Your task to perform on an android device: open app "Google Play Games" (install if not already installed) Image 0: 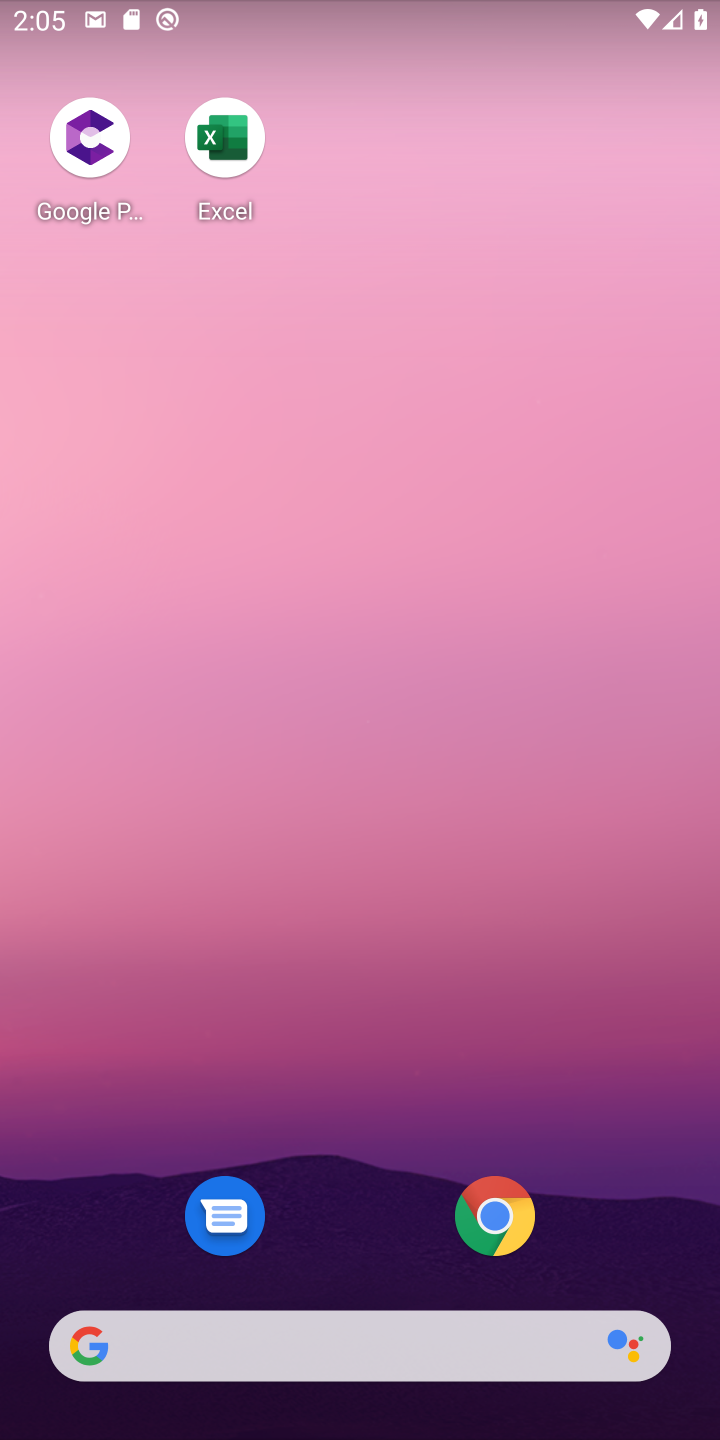
Step 0: drag from (359, 1286) to (189, 131)
Your task to perform on an android device: open app "Google Play Games" (install if not already installed) Image 1: 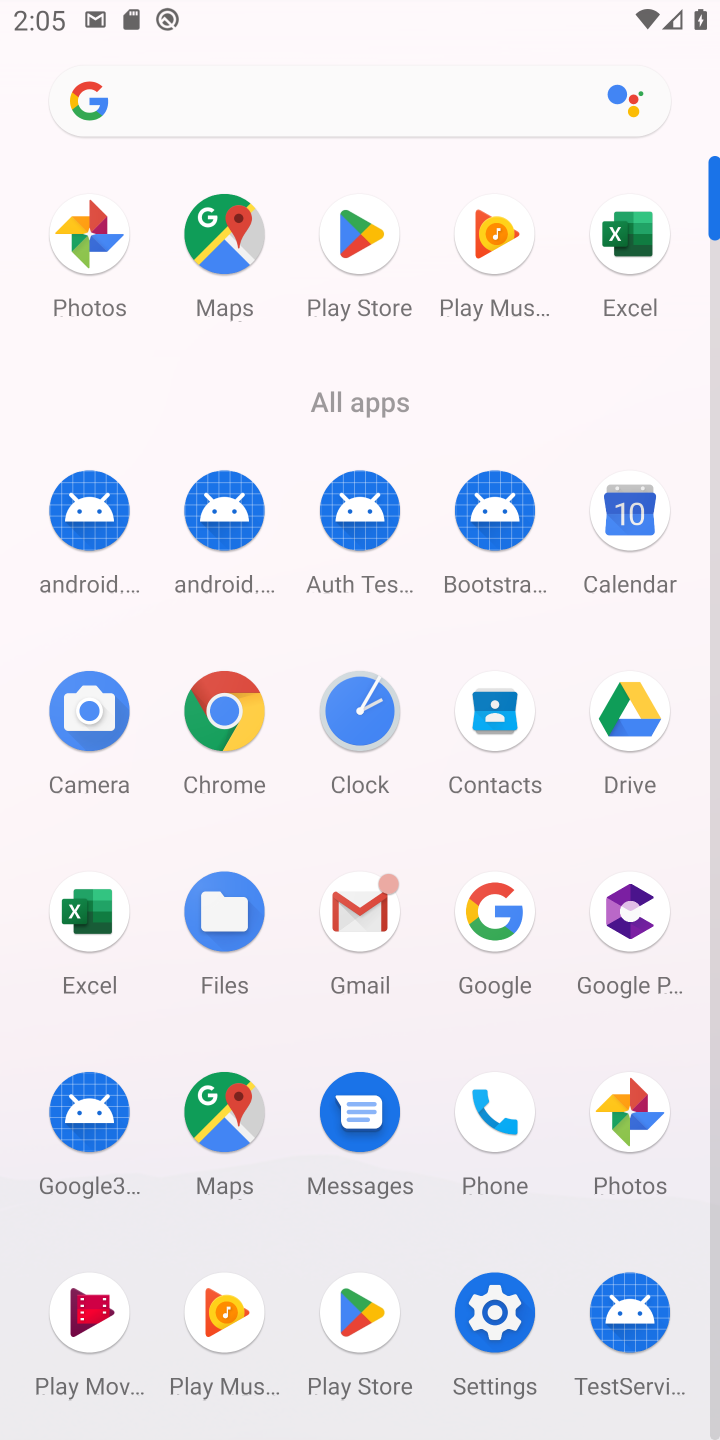
Step 1: click (344, 1319)
Your task to perform on an android device: open app "Google Play Games" (install if not already installed) Image 2: 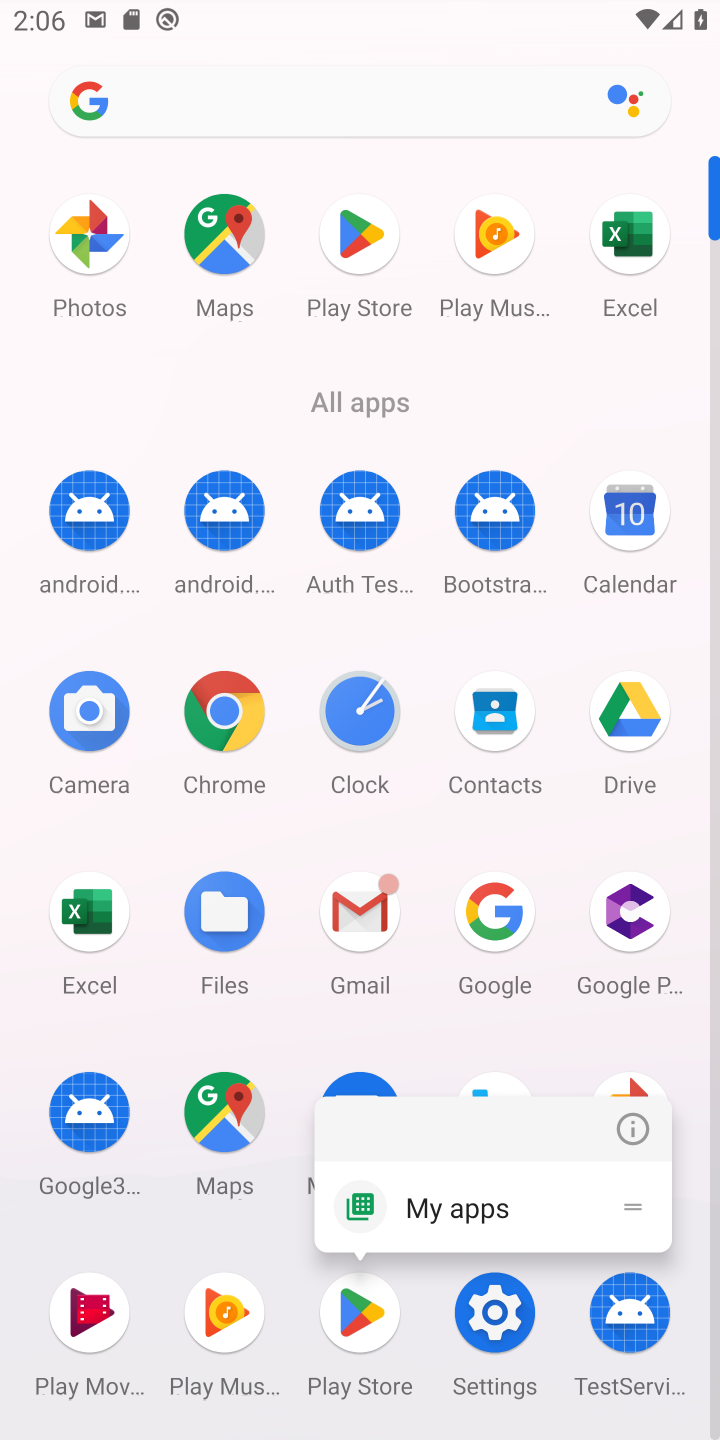
Step 2: click (344, 1319)
Your task to perform on an android device: open app "Google Play Games" (install if not already installed) Image 3: 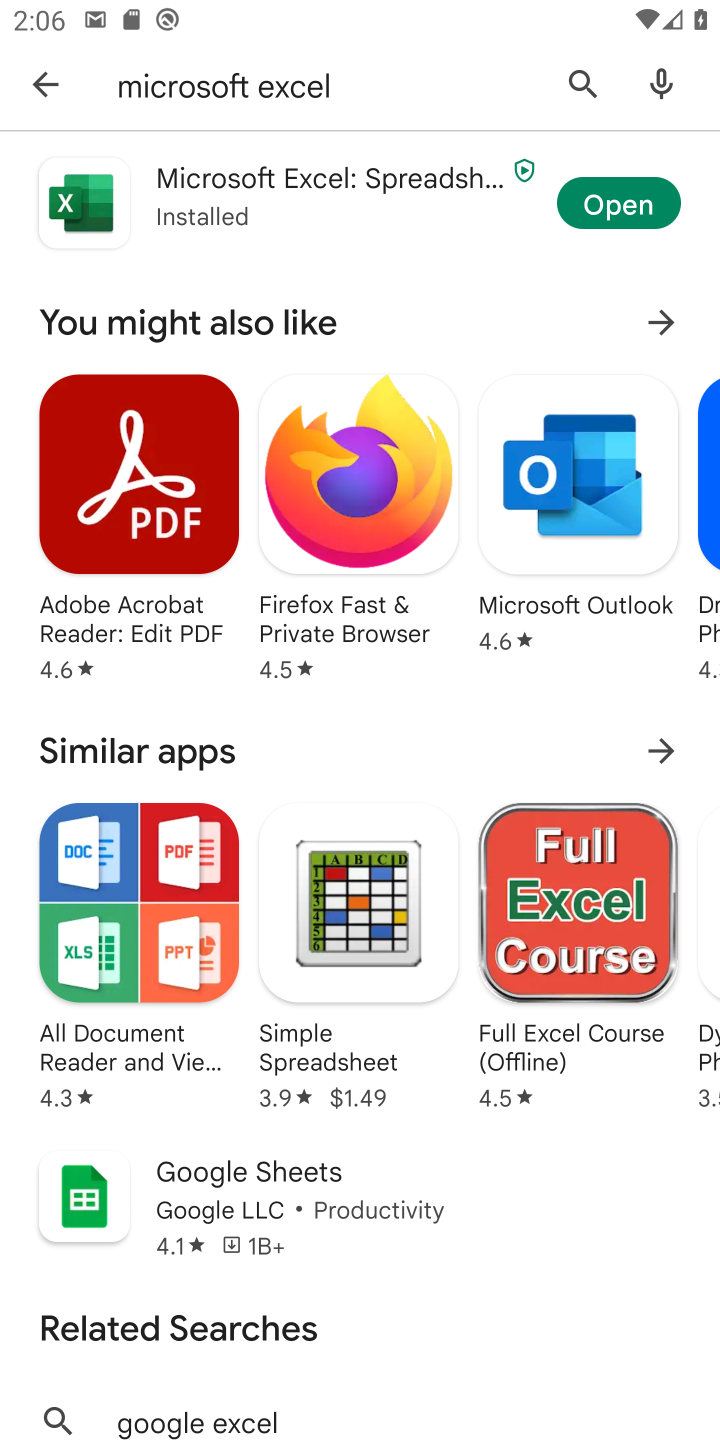
Step 3: click (40, 88)
Your task to perform on an android device: open app "Google Play Games" (install if not already installed) Image 4: 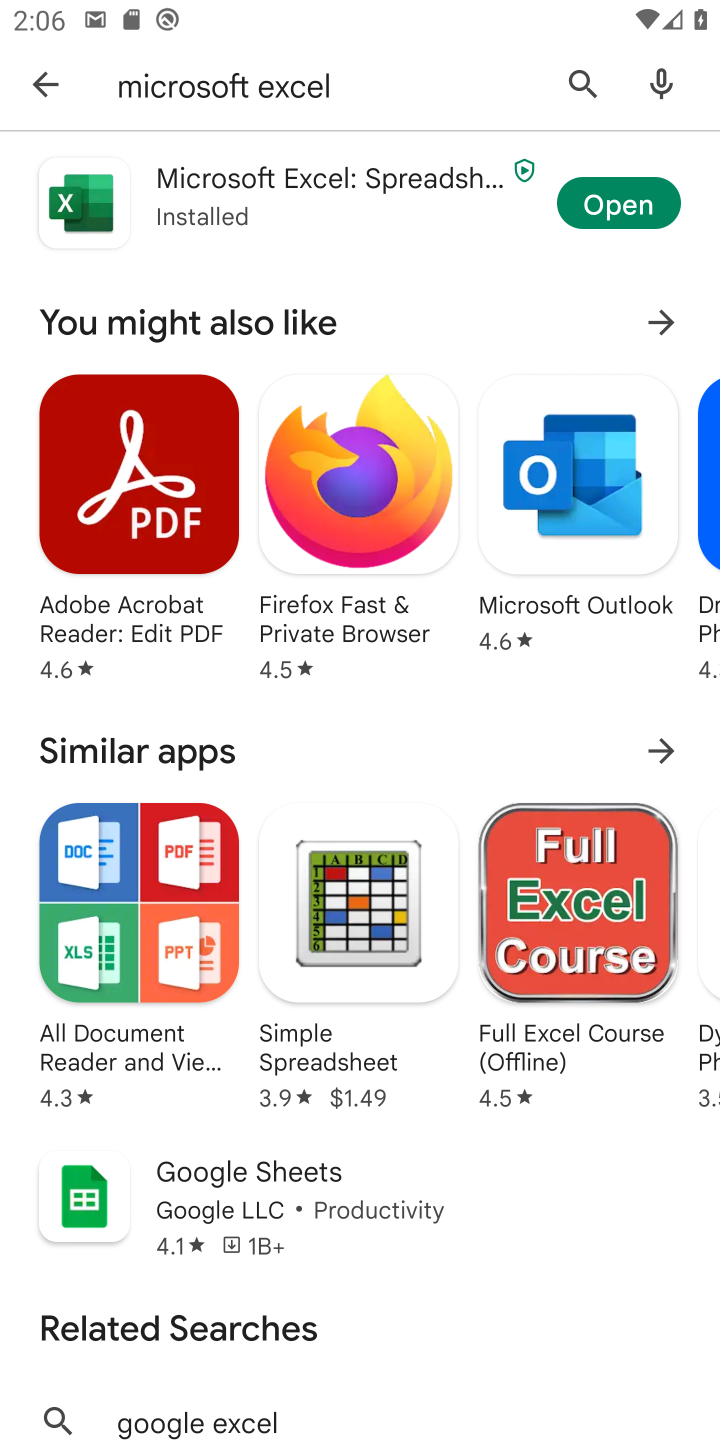
Step 4: click (580, 85)
Your task to perform on an android device: open app "Google Play Games" (install if not already installed) Image 5: 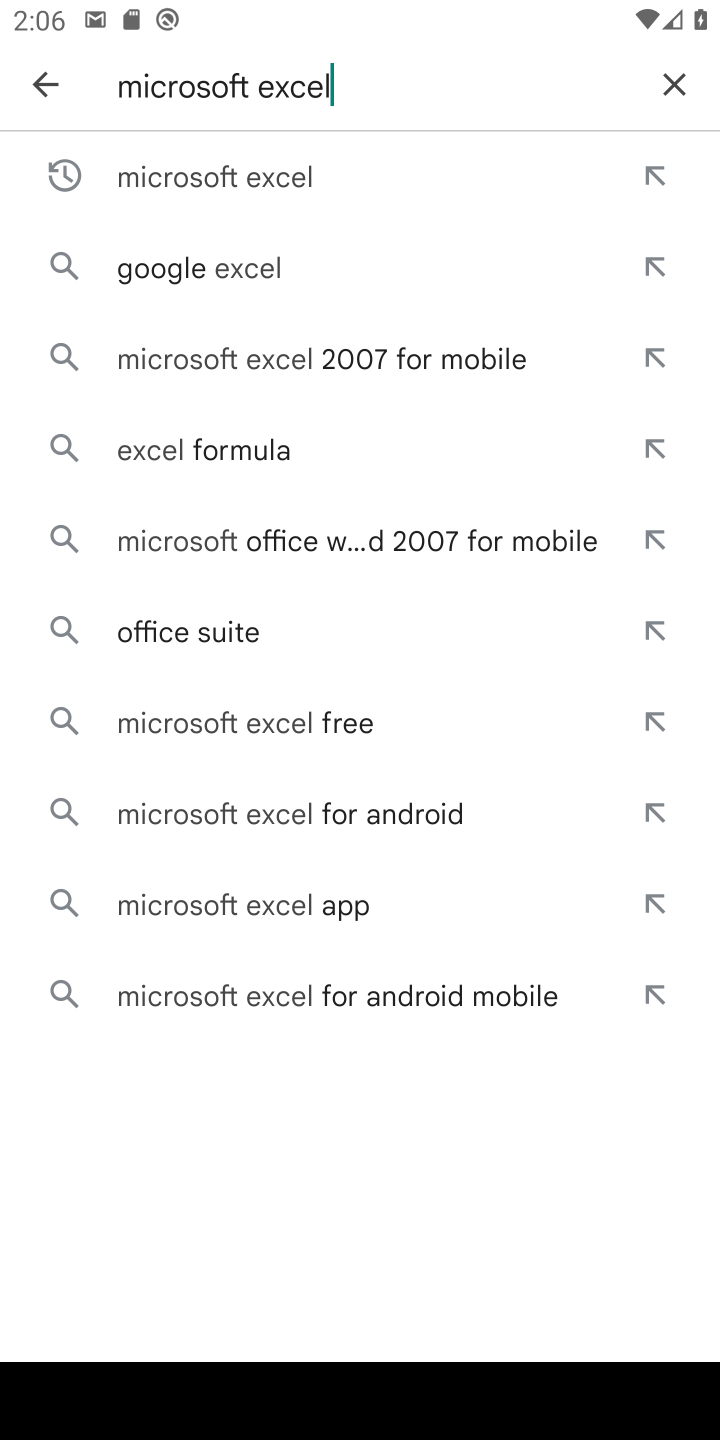
Step 5: click (656, 87)
Your task to perform on an android device: open app "Google Play Games" (install if not already installed) Image 6: 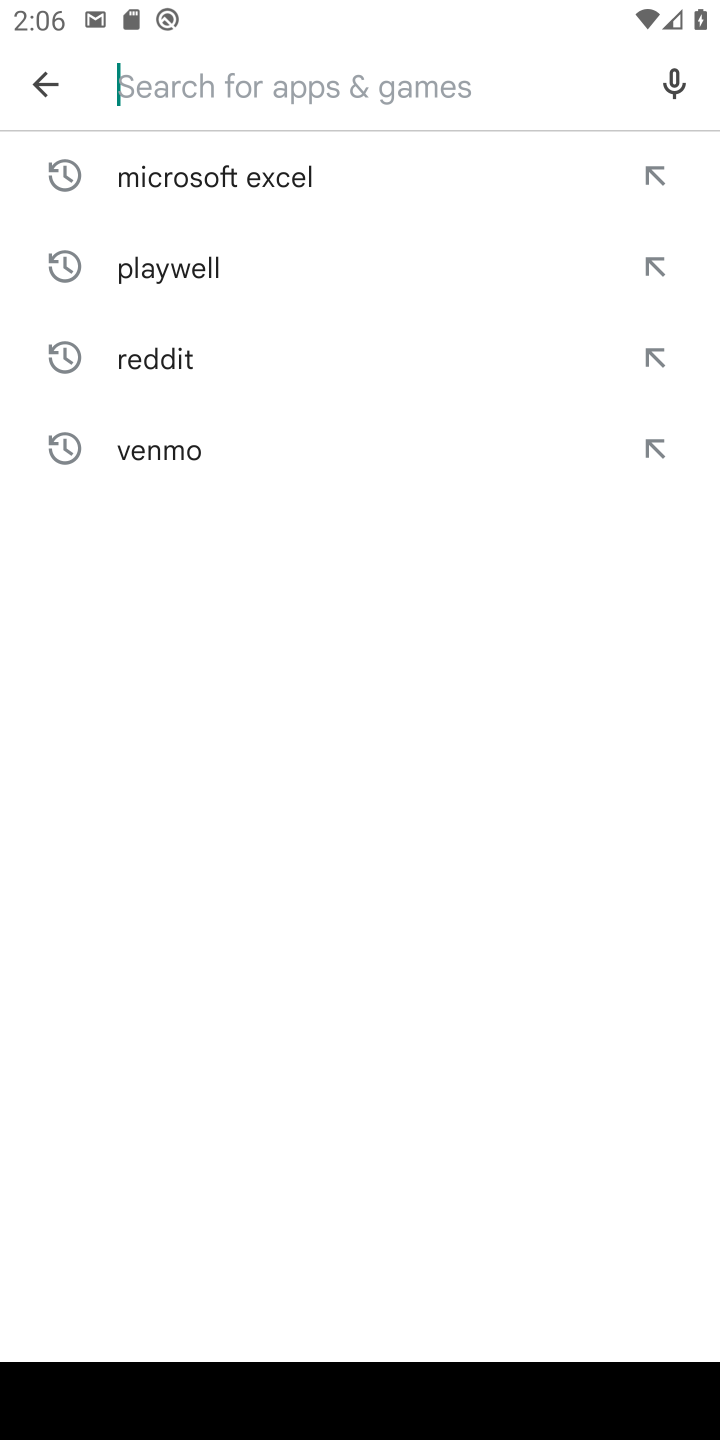
Step 6: type "Google Play Games"
Your task to perform on an android device: open app "Google Play Games" (install if not already installed) Image 7: 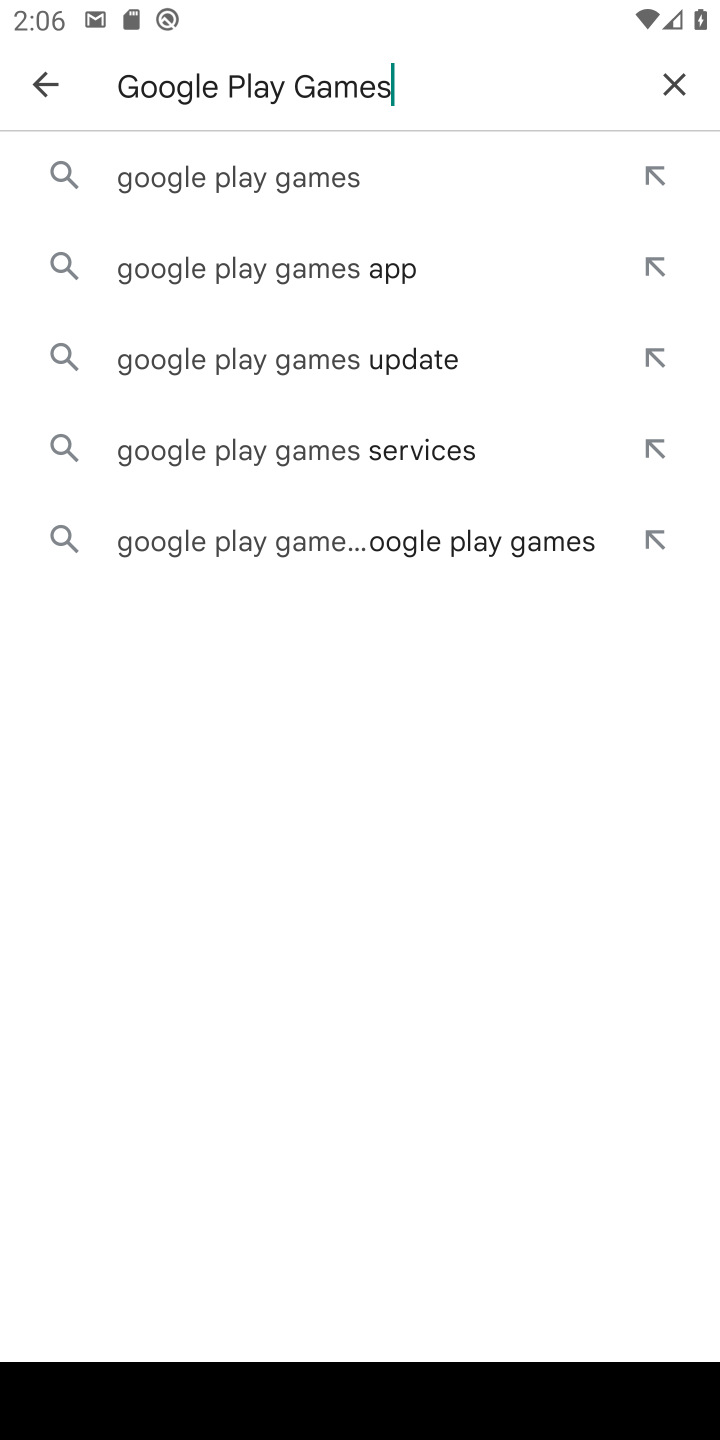
Step 7: click (243, 194)
Your task to perform on an android device: open app "Google Play Games" (install if not already installed) Image 8: 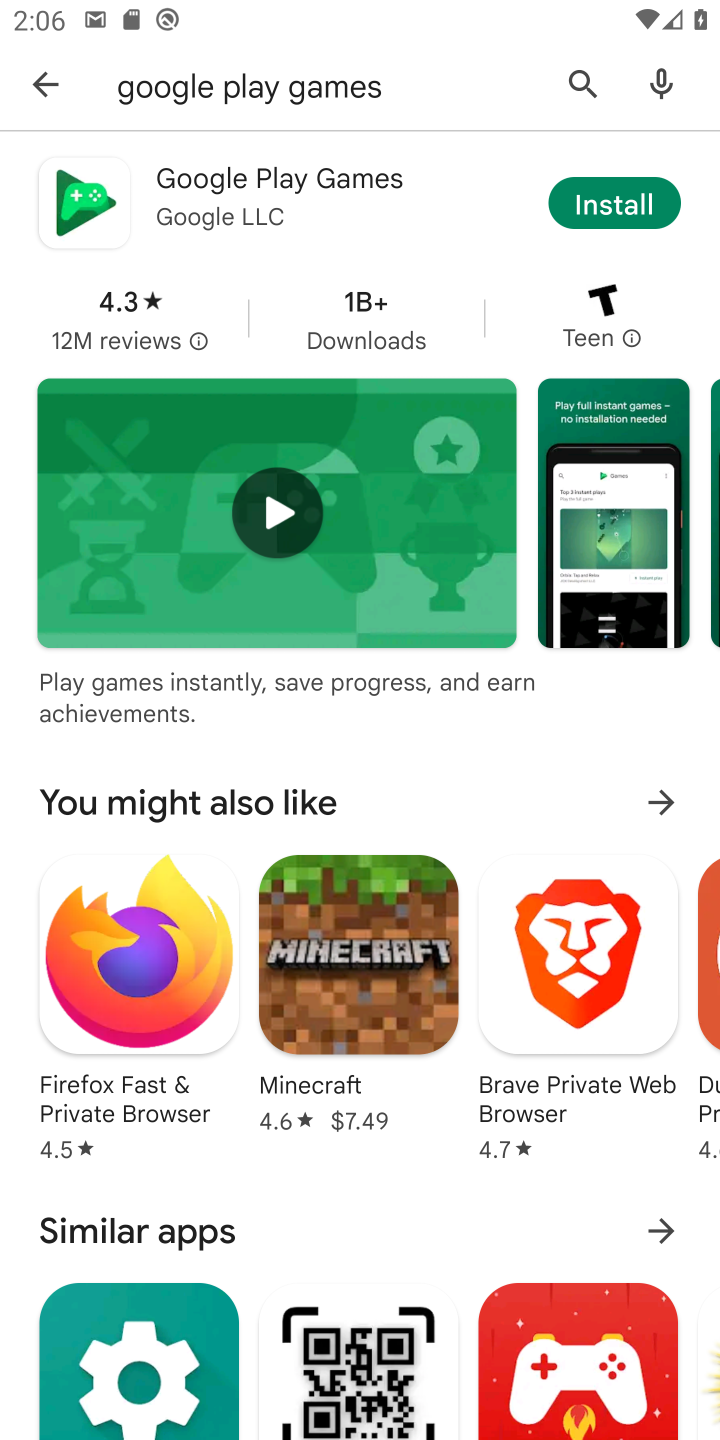
Step 8: click (662, 185)
Your task to perform on an android device: open app "Google Play Games" (install if not already installed) Image 9: 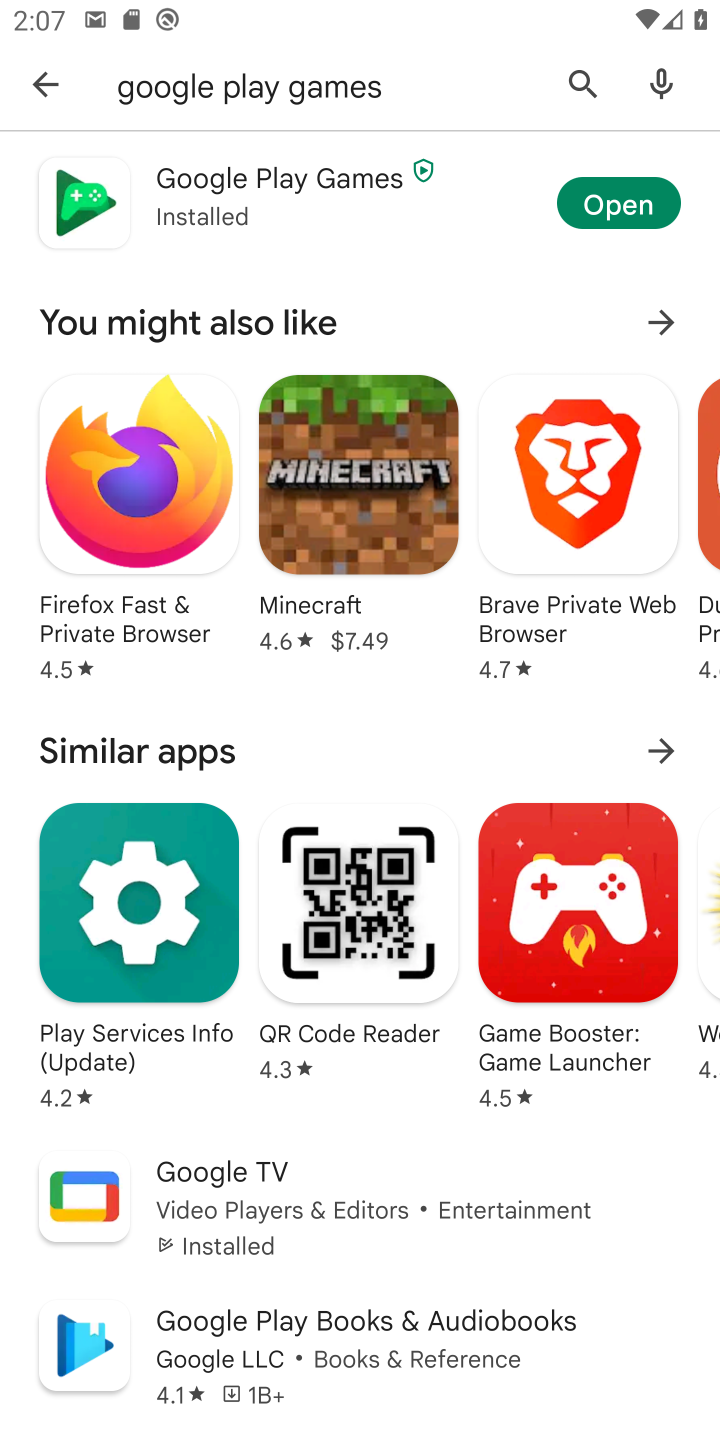
Step 9: click (635, 209)
Your task to perform on an android device: open app "Google Play Games" (install if not already installed) Image 10: 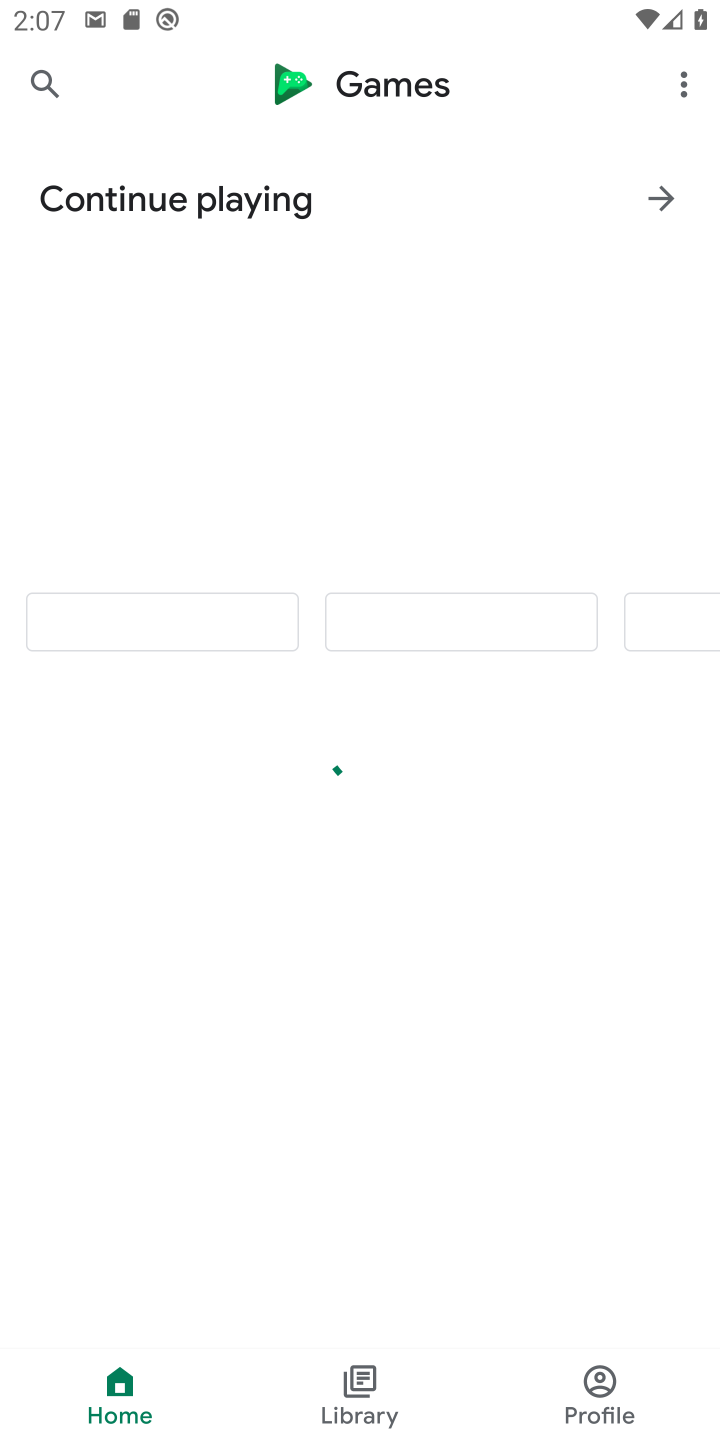
Step 10: task complete